Your task to perform on an android device: Show me popular games on the Play Store Image 0: 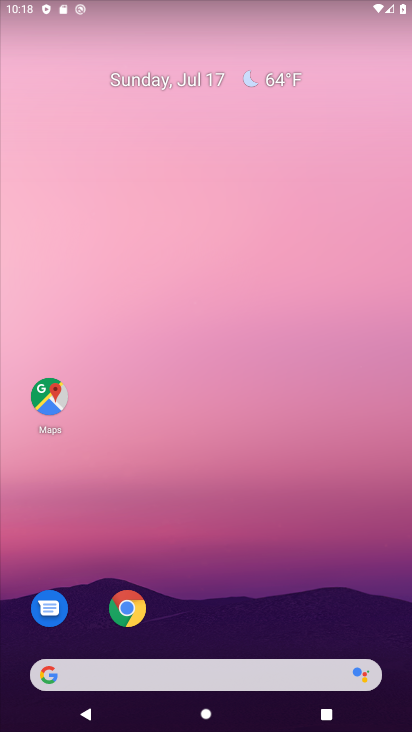
Step 0: drag from (346, 610) to (237, 42)
Your task to perform on an android device: Show me popular games on the Play Store Image 1: 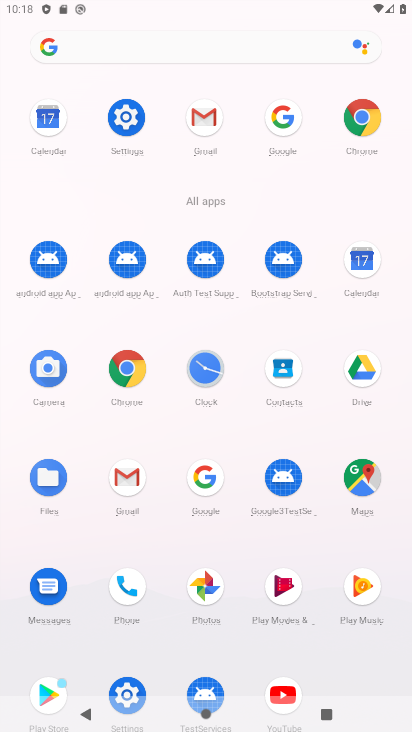
Step 1: click (40, 680)
Your task to perform on an android device: Show me popular games on the Play Store Image 2: 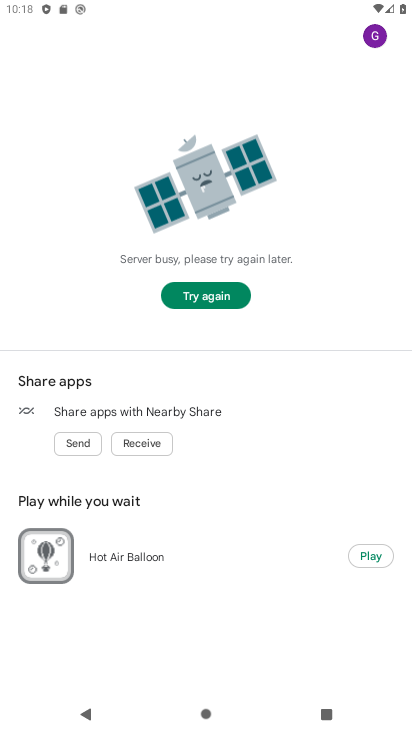
Step 2: click (193, 304)
Your task to perform on an android device: Show me popular games on the Play Store Image 3: 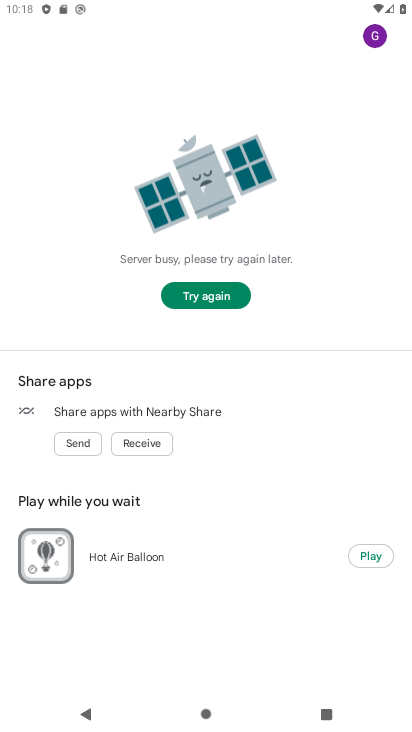
Step 3: task complete